Your task to perform on an android device: open chrome privacy settings Image 0: 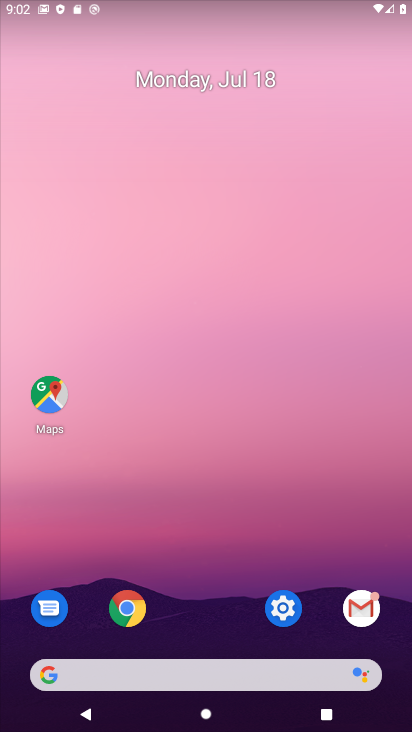
Step 0: click (128, 617)
Your task to perform on an android device: open chrome privacy settings Image 1: 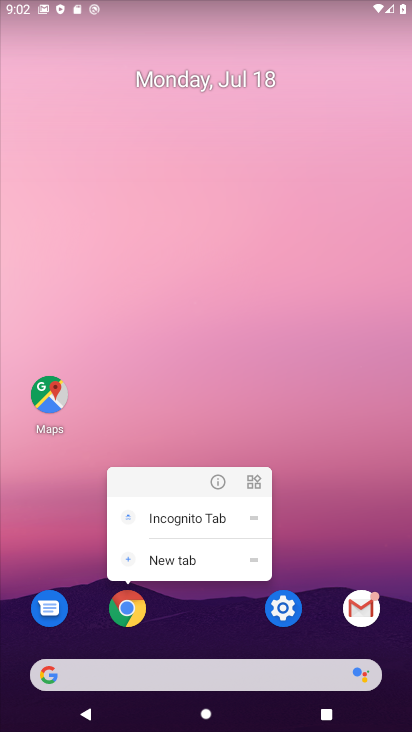
Step 1: click (124, 609)
Your task to perform on an android device: open chrome privacy settings Image 2: 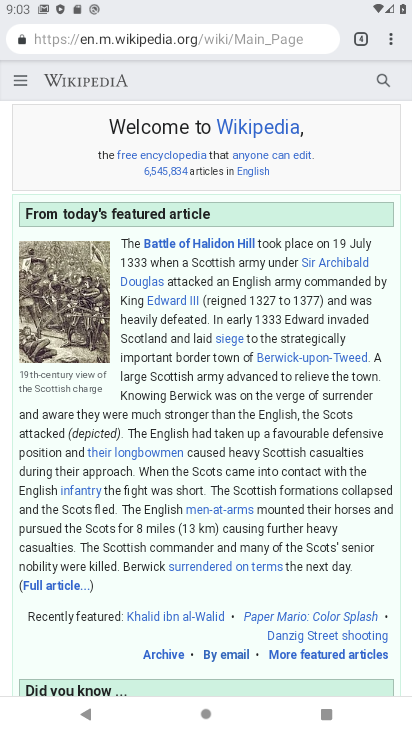
Step 2: click (389, 37)
Your task to perform on an android device: open chrome privacy settings Image 3: 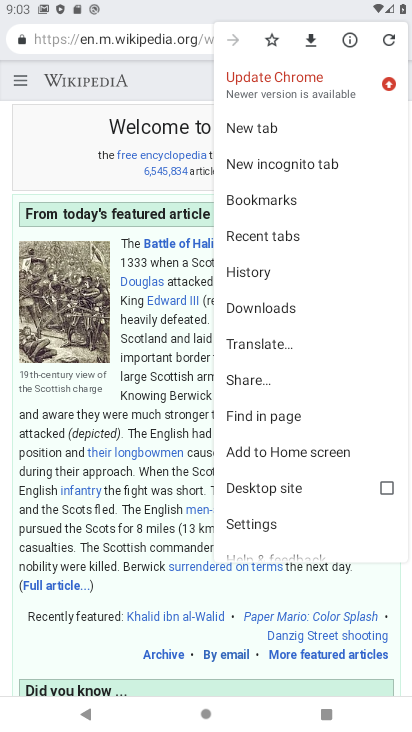
Step 3: click (256, 519)
Your task to perform on an android device: open chrome privacy settings Image 4: 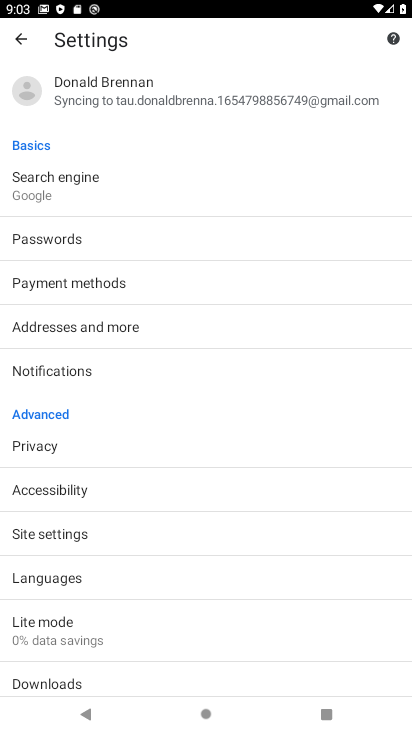
Step 4: click (29, 444)
Your task to perform on an android device: open chrome privacy settings Image 5: 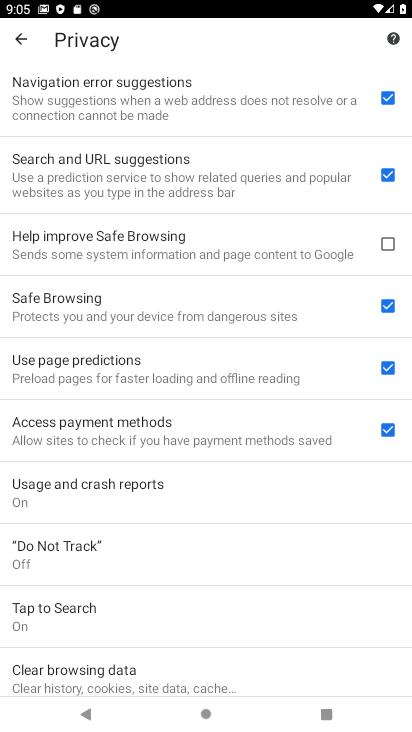
Step 5: task complete